Your task to perform on an android device: change alarm snooze length Image 0: 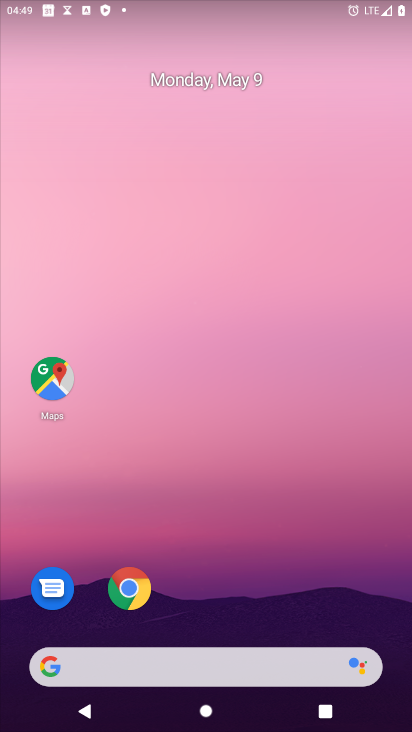
Step 0: drag from (260, 616) to (187, 72)
Your task to perform on an android device: change alarm snooze length Image 1: 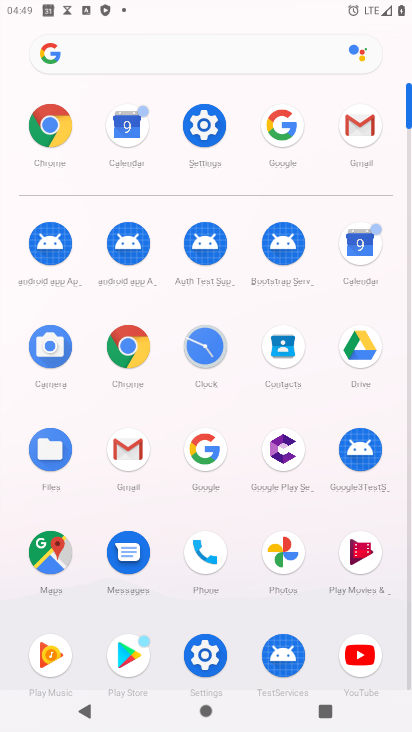
Step 1: click (211, 347)
Your task to perform on an android device: change alarm snooze length Image 2: 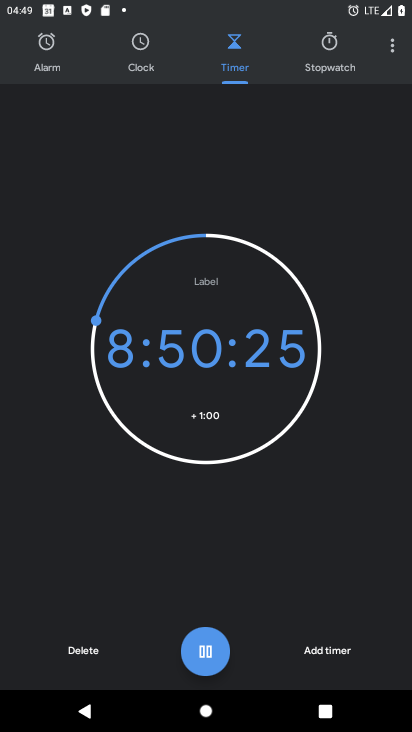
Step 2: click (385, 46)
Your task to perform on an android device: change alarm snooze length Image 3: 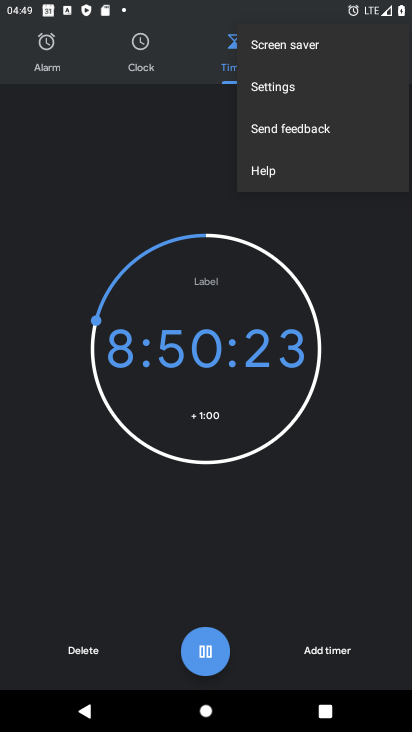
Step 3: click (291, 84)
Your task to perform on an android device: change alarm snooze length Image 4: 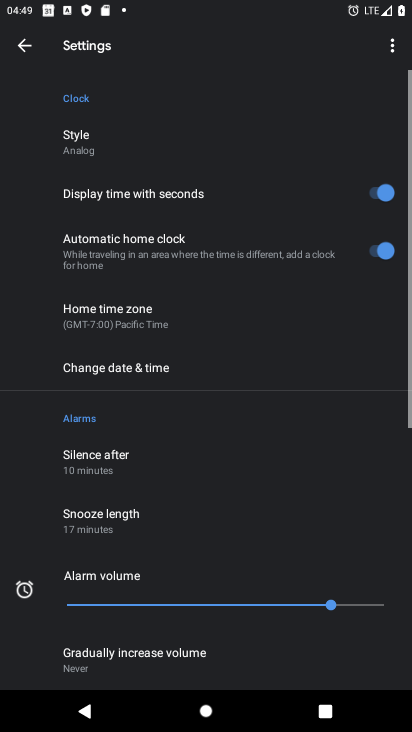
Step 4: click (118, 525)
Your task to perform on an android device: change alarm snooze length Image 5: 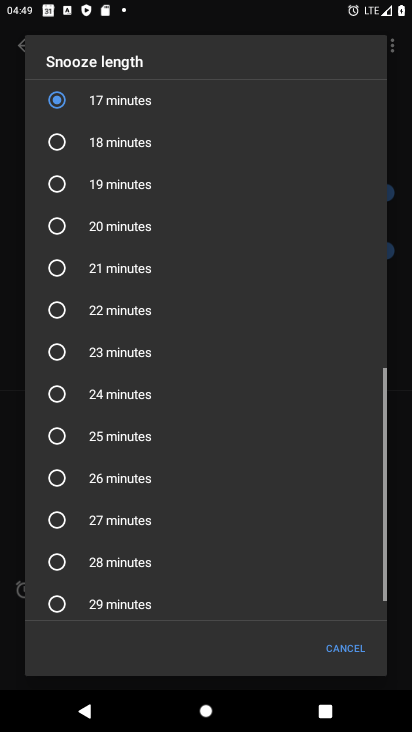
Step 5: click (149, 254)
Your task to perform on an android device: change alarm snooze length Image 6: 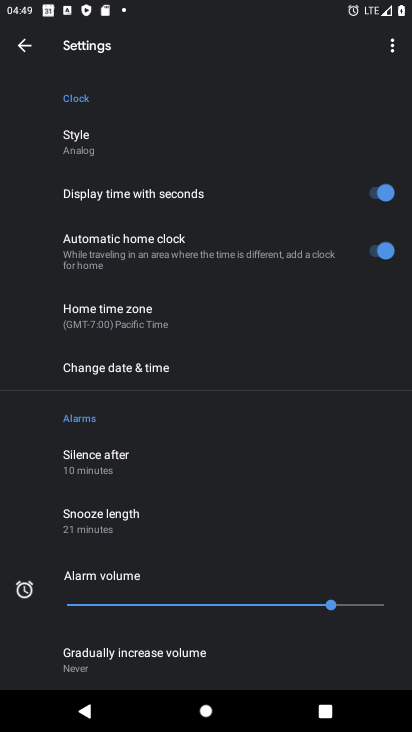
Step 6: task complete